Your task to perform on an android device: Search for Italian restaurants on Maps Image 0: 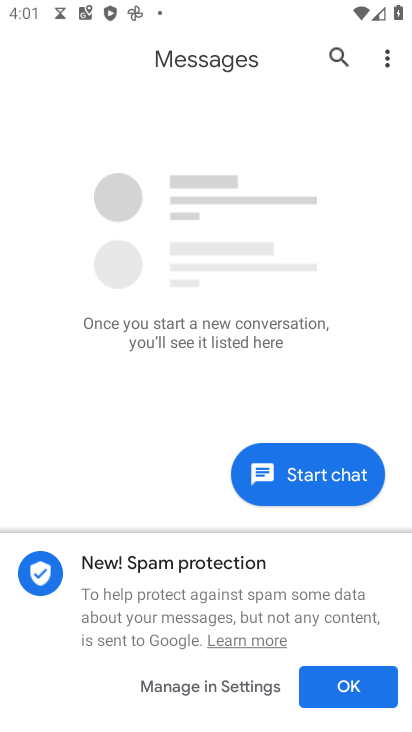
Step 0: press back button
Your task to perform on an android device: Search for Italian restaurants on Maps Image 1: 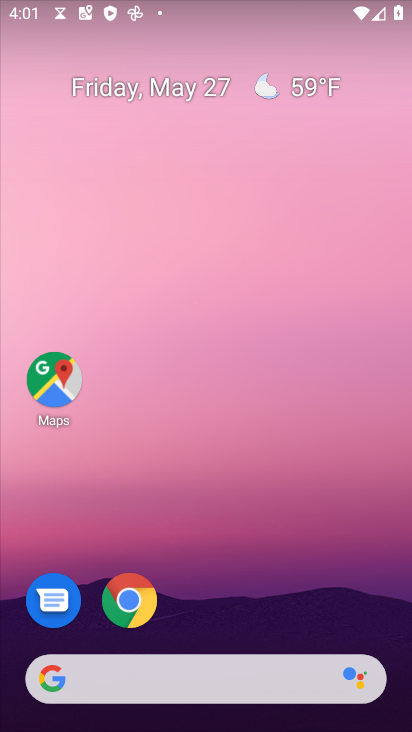
Step 1: click (56, 378)
Your task to perform on an android device: Search for Italian restaurants on Maps Image 2: 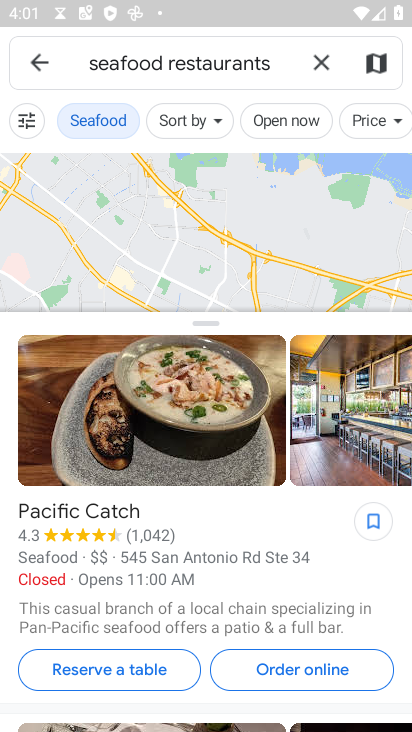
Step 2: click (325, 61)
Your task to perform on an android device: Search for Italian restaurants on Maps Image 3: 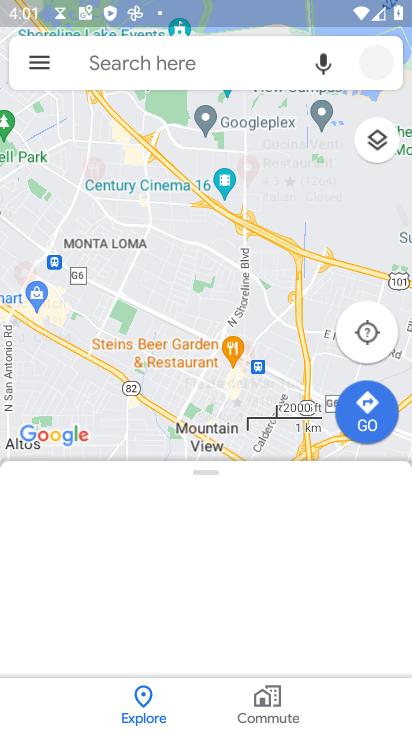
Step 3: click (222, 56)
Your task to perform on an android device: Search for Italian restaurants on Maps Image 4: 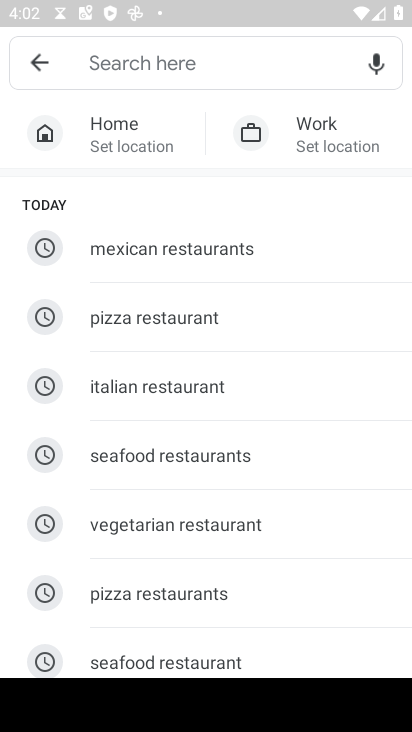
Step 4: click (188, 382)
Your task to perform on an android device: Search for Italian restaurants on Maps Image 5: 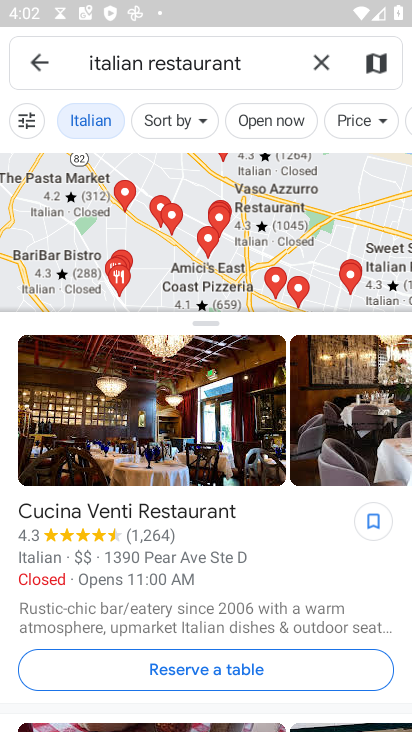
Step 5: task complete